Your task to perform on an android device: What's the weather going to be tomorrow? Image 0: 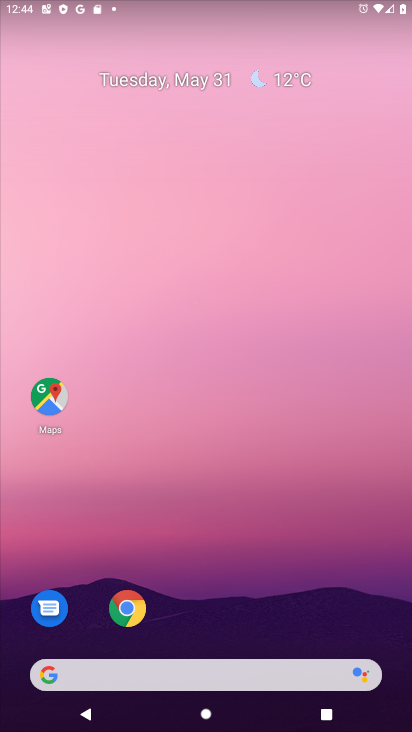
Step 0: drag from (231, 619) to (298, 175)
Your task to perform on an android device: What's the weather going to be tomorrow? Image 1: 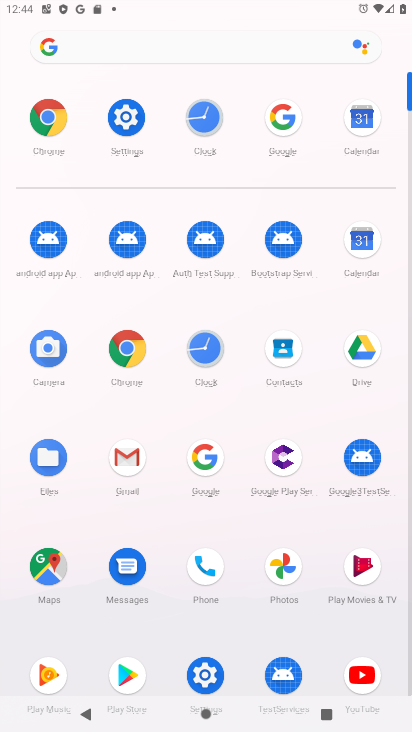
Step 1: click (207, 459)
Your task to perform on an android device: What's the weather going to be tomorrow? Image 2: 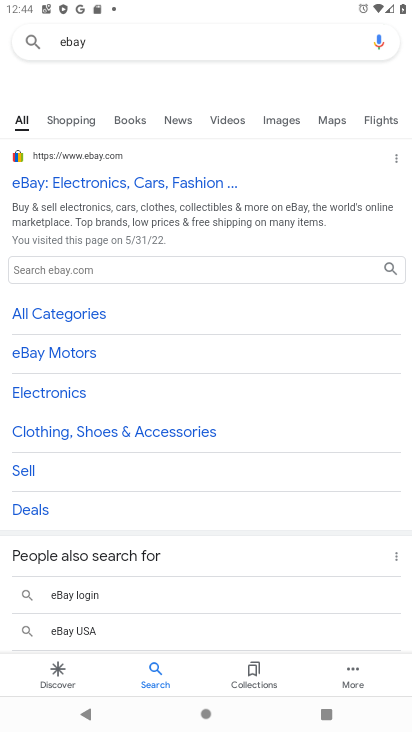
Step 2: click (206, 36)
Your task to perform on an android device: What's the weather going to be tomorrow? Image 3: 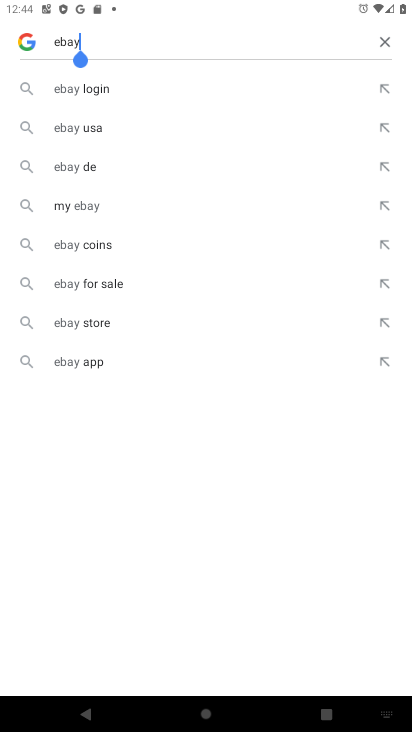
Step 3: click (383, 39)
Your task to perform on an android device: What's the weather going to be tomorrow? Image 4: 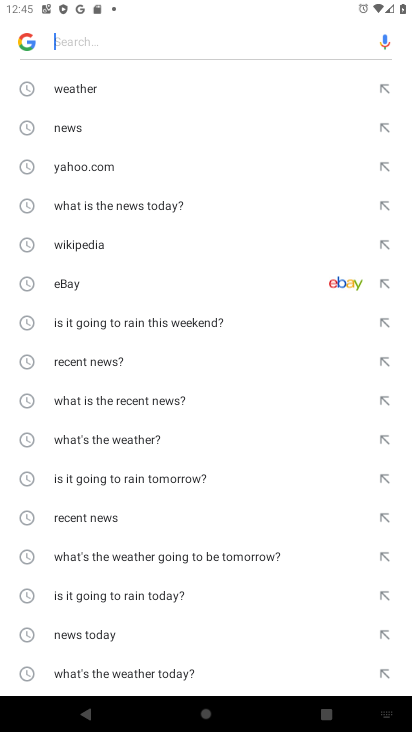
Step 4: click (194, 556)
Your task to perform on an android device: What's the weather going to be tomorrow? Image 5: 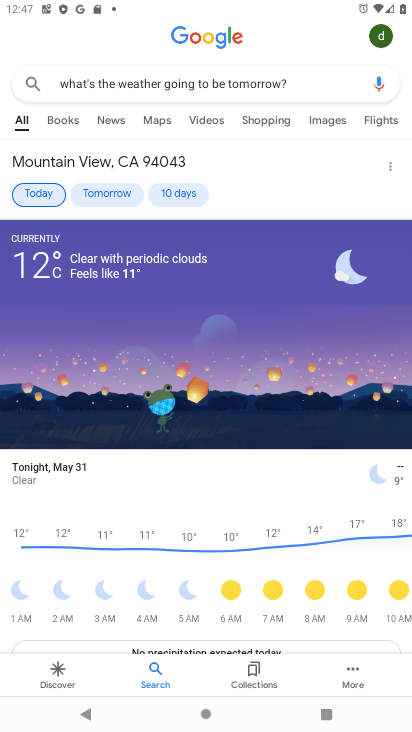
Step 5: task complete